Your task to perform on an android device: change the clock style Image 0: 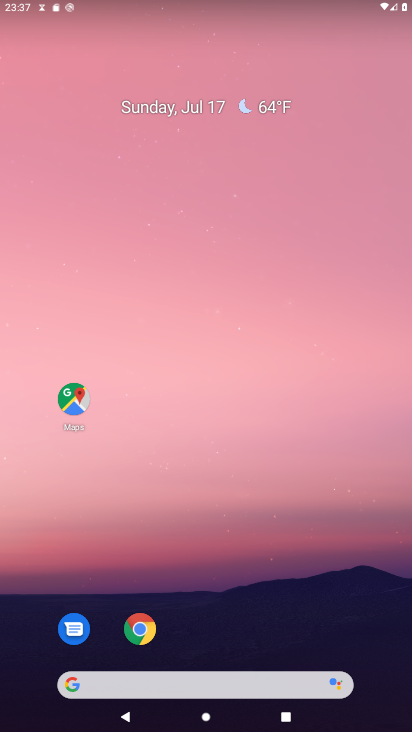
Step 0: drag from (221, 611) to (220, 211)
Your task to perform on an android device: change the clock style Image 1: 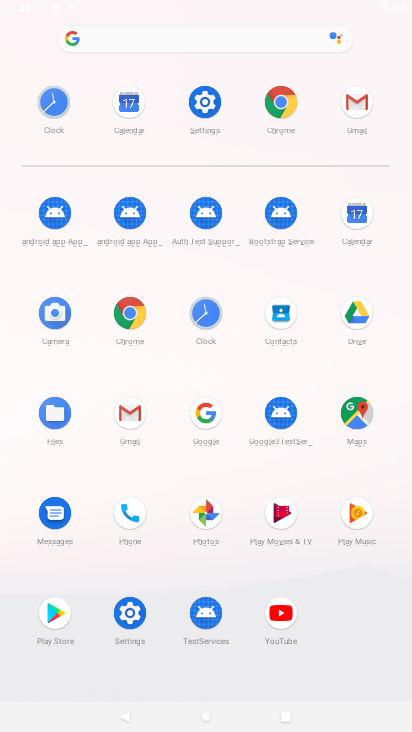
Step 1: click (211, 315)
Your task to perform on an android device: change the clock style Image 2: 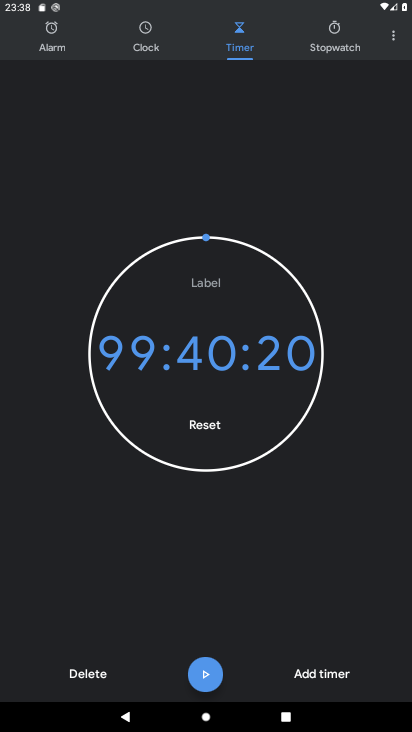
Step 2: click (396, 26)
Your task to perform on an android device: change the clock style Image 3: 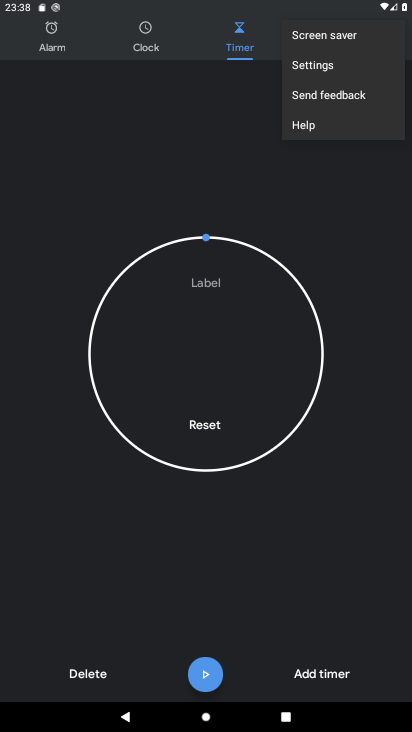
Step 3: click (337, 64)
Your task to perform on an android device: change the clock style Image 4: 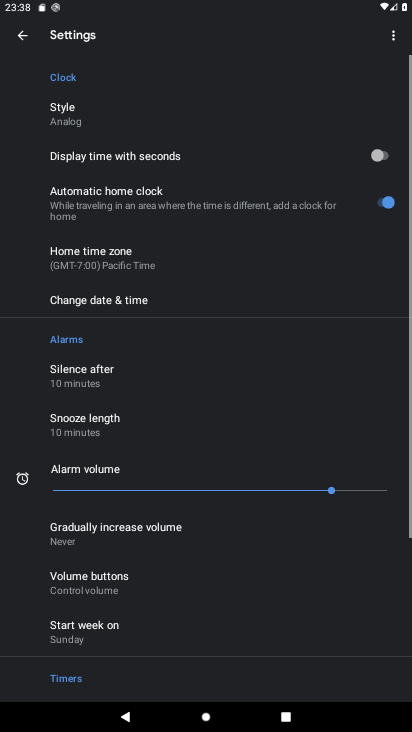
Step 4: click (69, 101)
Your task to perform on an android device: change the clock style Image 5: 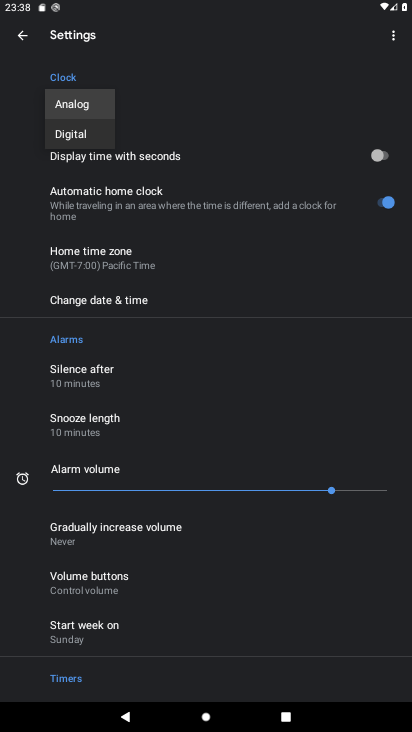
Step 5: click (72, 134)
Your task to perform on an android device: change the clock style Image 6: 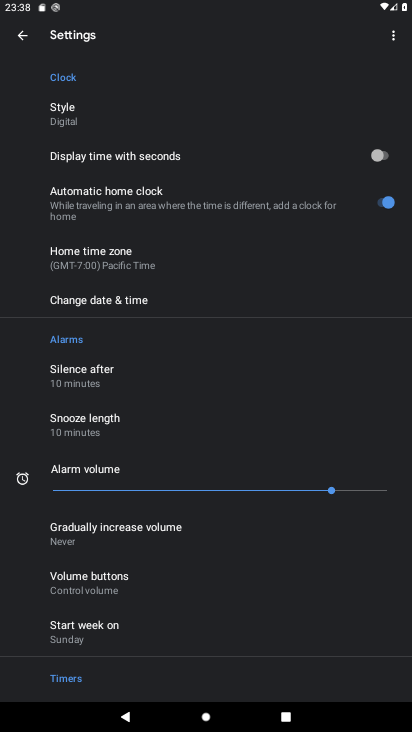
Step 6: task complete